Your task to perform on an android device: Open privacy settings Image 0: 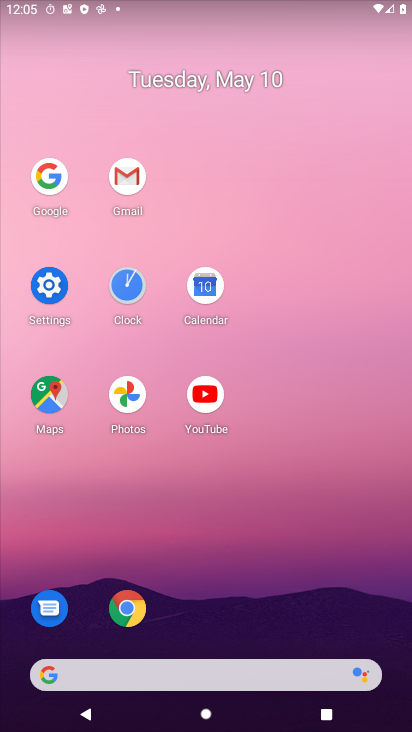
Step 0: click (45, 303)
Your task to perform on an android device: Open privacy settings Image 1: 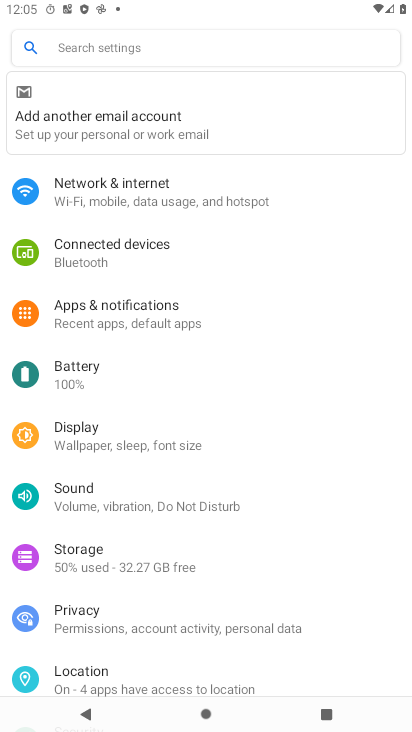
Step 1: click (131, 626)
Your task to perform on an android device: Open privacy settings Image 2: 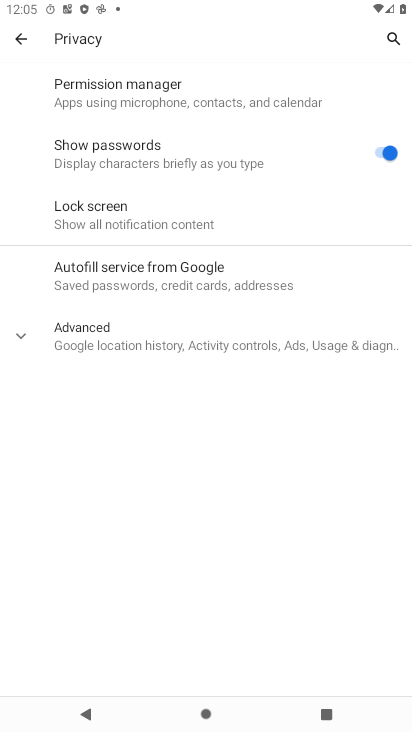
Step 2: task complete